Your task to perform on an android device: Go to sound settings Image 0: 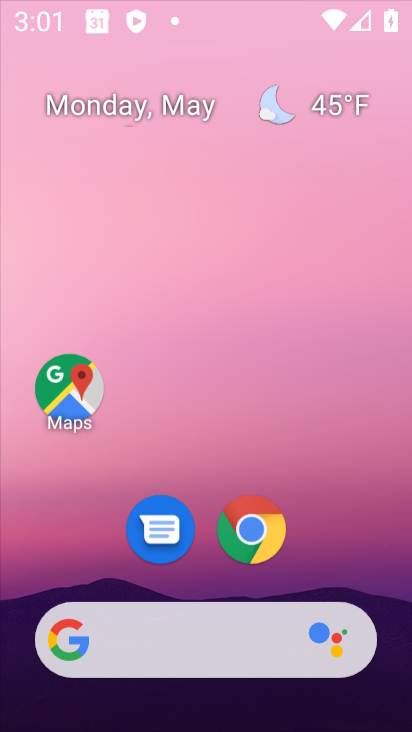
Step 0: click (381, 490)
Your task to perform on an android device: Go to sound settings Image 1: 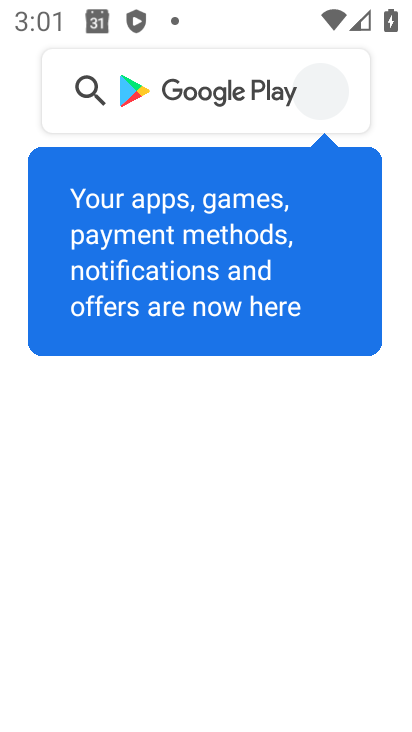
Step 1: press home button
Your task to perform on an android device: Go to sound settings Image 2: 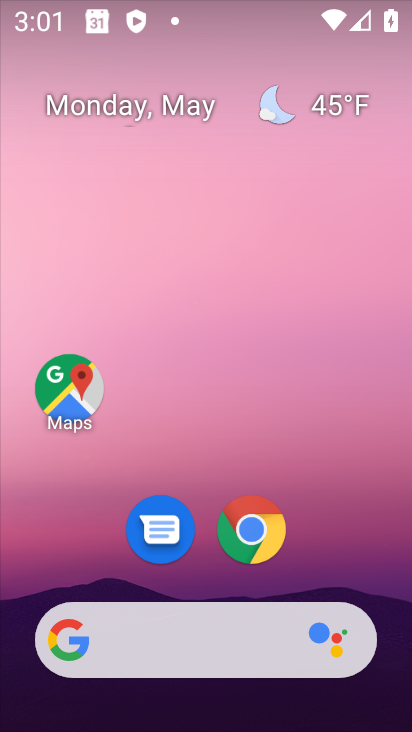
Step 2: drag from (400, 594) to (365, 208)
Your task to perform on an android device: Go to sound settings Image 3: 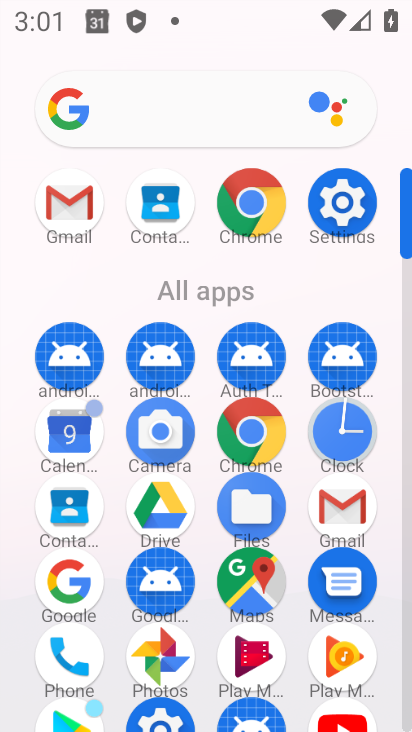
Step 3: click (339, 213)
Your task to perform on an android device: Go to sound settings Image 4: 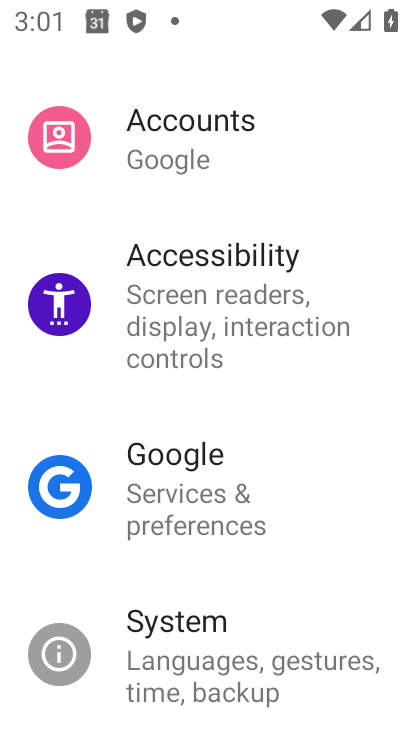
Step 4: drag from (199, 193) to (210, 668)
Your task to perform on an android device: Go to sound settings Image 5: 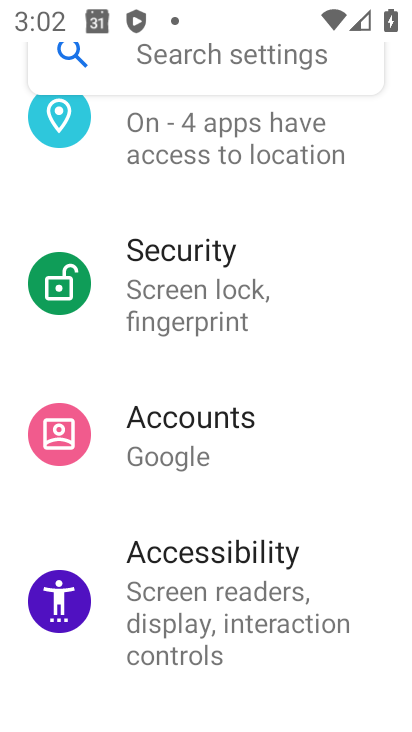
Step 5: drag from (232, 209) to (243, 694)
Your task to perform on an android device: Go to sound settings Image 6: 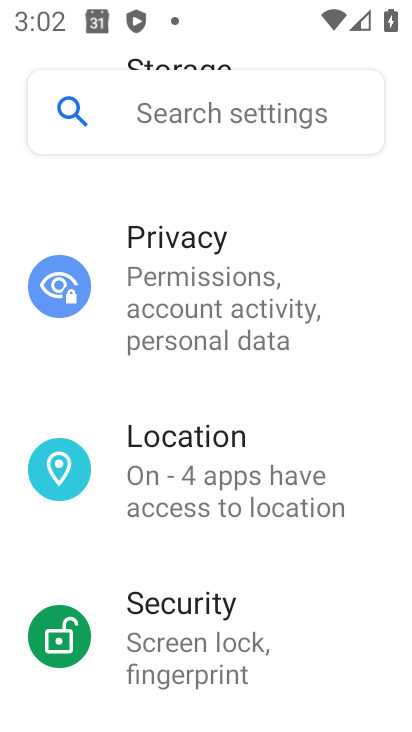
Step 6: drag from (197, 178) to (175, 616)
Your task to perform on an android device: Go to sound settings Image 7: 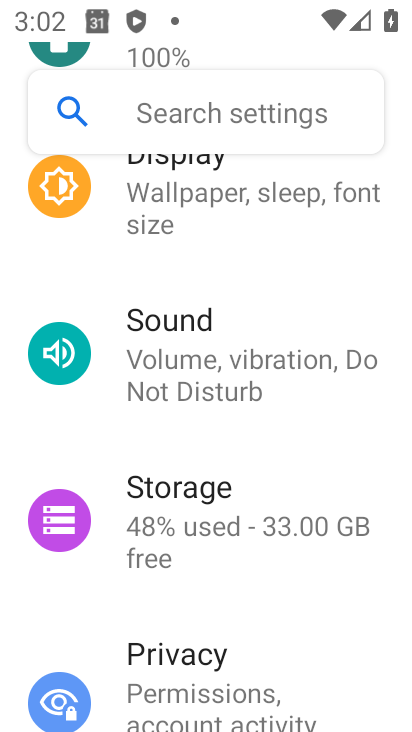
Step 7: click (180, 371)
Your task to perform on an android device: Go to sound settings Image 8: 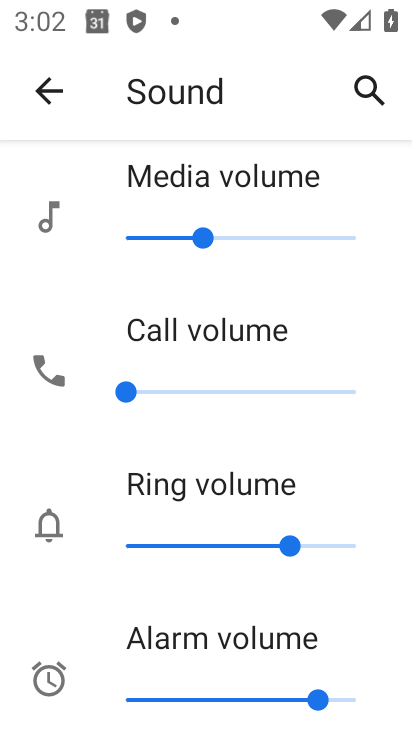
Step 8: task complete